Your task to perform on an android device: turn off sleep mode Image 0: 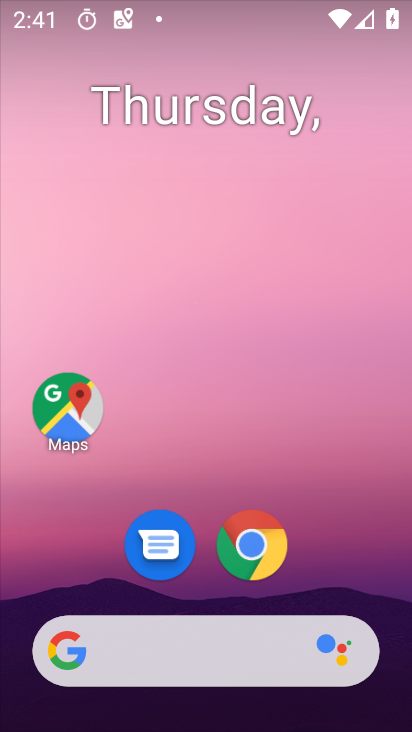
Step 0: drag from (257, 718) to (257, 49)
Your task to perform on an android device: turn off sleep mode Image 1: 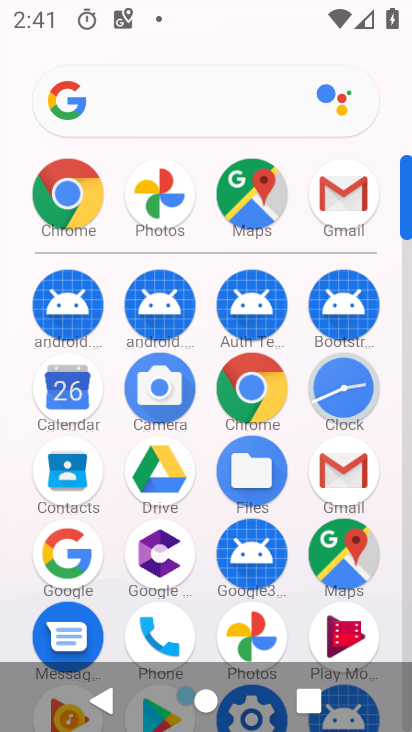
Step 1: drag from (191, 611) to (171, 186)
Your task to perform on an android device: turn off sleep mode Image 2: 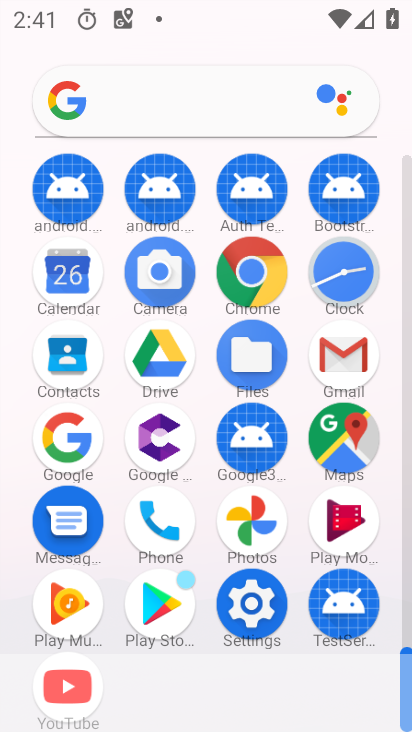
Step 2: click (255, 592)
Your task to perform on an android device: turn off sleep mode Image 3: 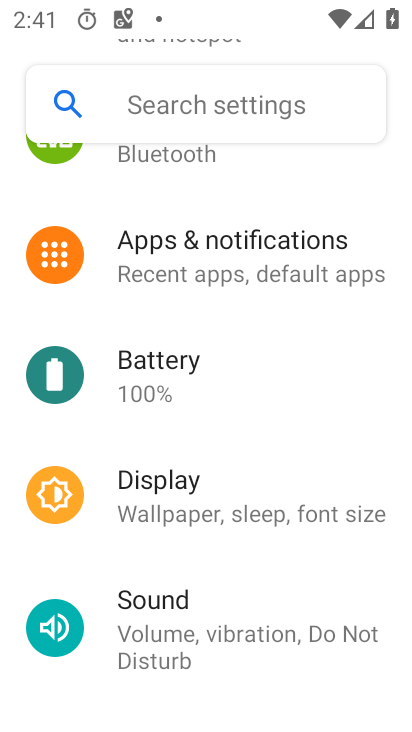
Step 3: drag from (218, 185) to (224, 590)
Your task to perform on an android device: turn off sleep mode Image 4: 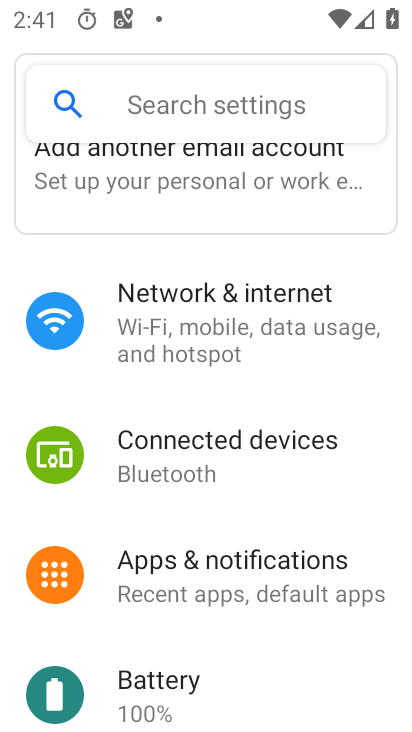
Step 4: drag from (225, 670) to (229, 266)
Your task to perform on an android device: turn off sleep mode Image 5: 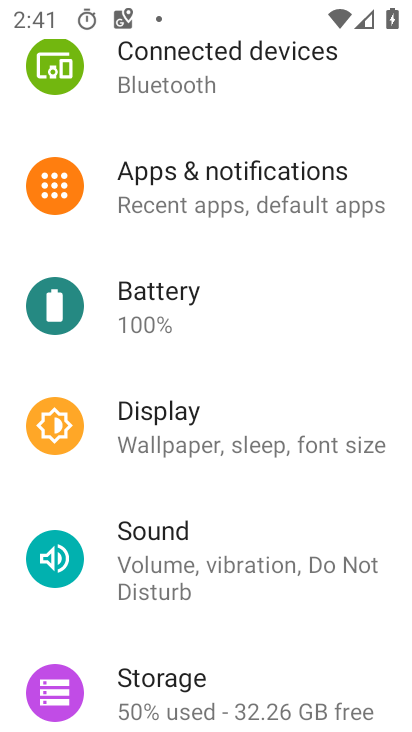
Step 5: drag from (218, 592) to (220, 267)
Your task to perform on an android device: turn off sleep mode Image 6: 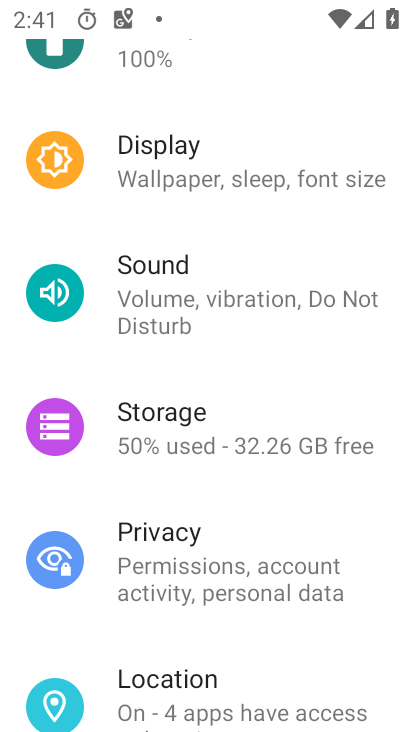
Step 6: drag from (228, 668) to (232, 218)
Your task to perform on an android device: turn off sleep mode Image 7: 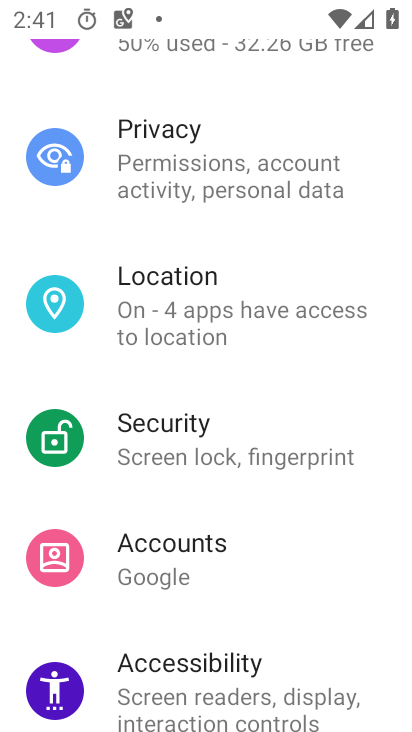
Step 7: drag from (264, 150) to (271, 449)
Your task to perform on an android device: turn off sleep mode Image 8: 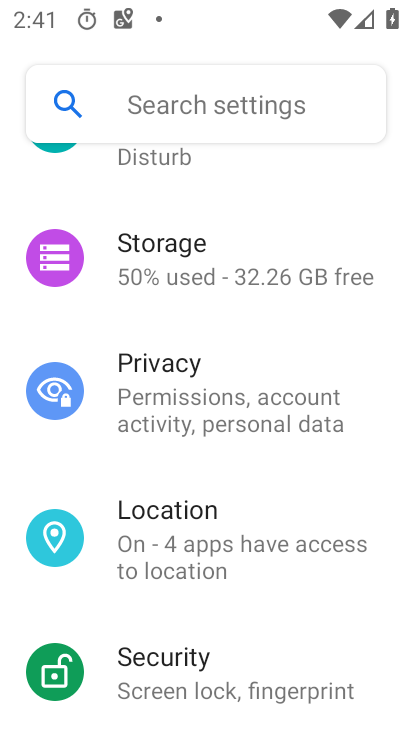
Step 8: drag from (278, 198) to (283, 520)
Your task to perform on an android device: turn off sleep mode Image 9: 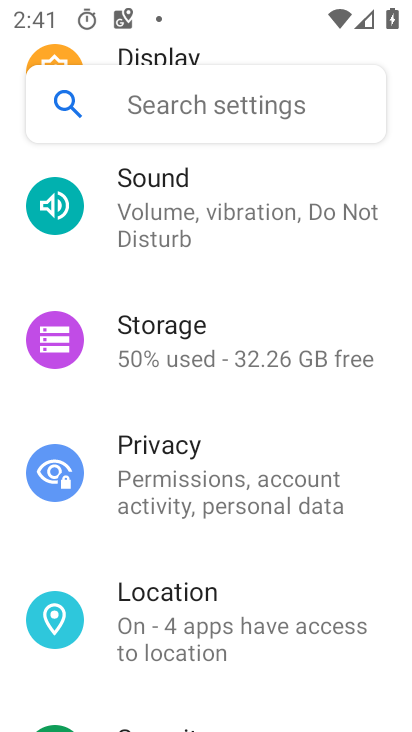
Step 9: drag from (223, 180) to (199, 590)
Your task to perform on an android device: turn off sleep mode Image 10: 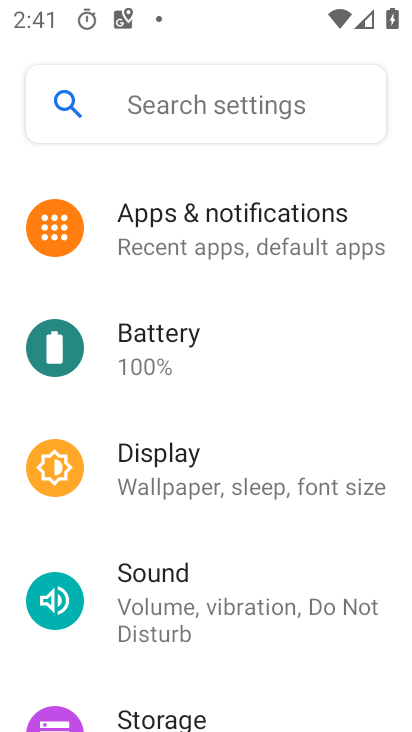
Step 10: click (186, 485)
Your task to perform on an android device: turn off sleep mode Image 11: 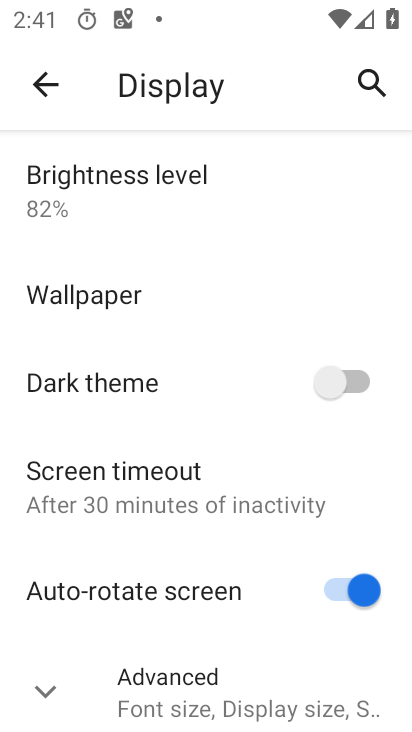
Step 11: task complete